Your task to perform on an android device: clear history in the chrome app Image 0: 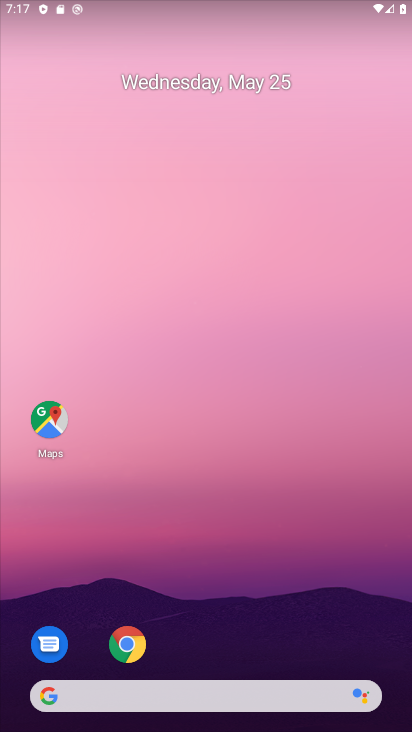
Step 0: click (129, 648)
Your task to perform on an android device: clear history in the chrome app Image 1: 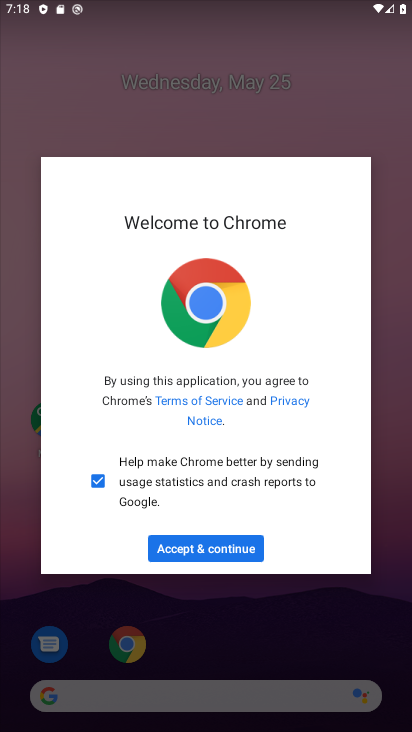
Step 1: click (236, 555)
Your task to perform on an android device: clear history in the chrome app Image 2: 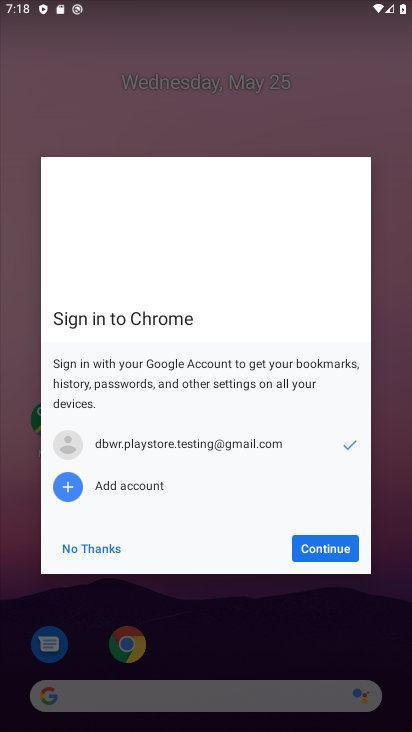
Step 2: click (341, 549)
Your task to perform on an android device: clear history in the chrome app Image 3: 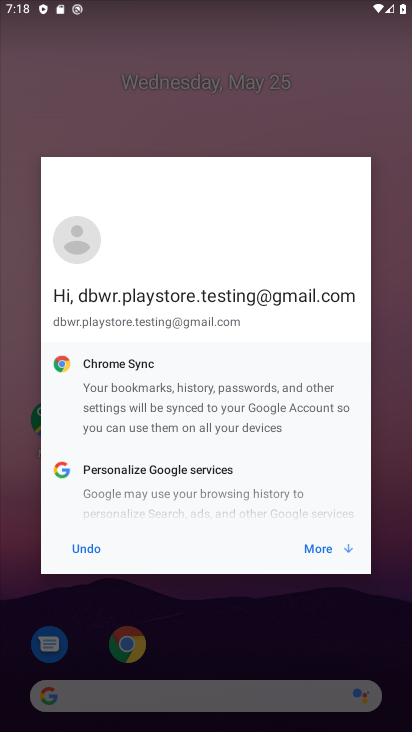
Step 3: click (309, 551)
Your task to perform on an android device: clear history in the chrome app Image 4: 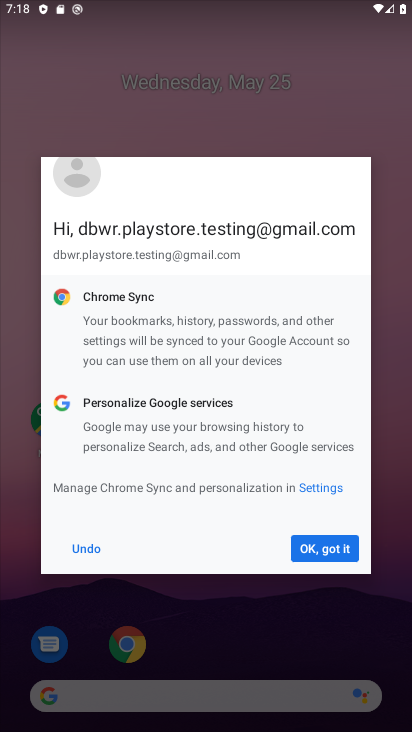
Step 4: click (345, 544)
Your task to perform on an android device: clear history in the chrome app Image 5: 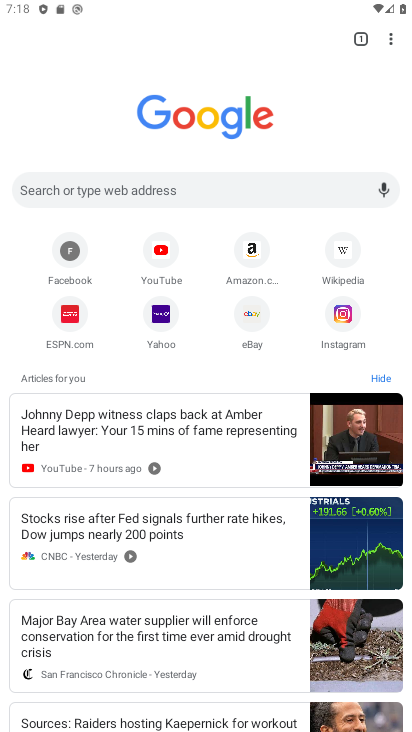
Step 5: task complete